Your task to perform on an android device: Show me popular games on the Play Store Image 0: 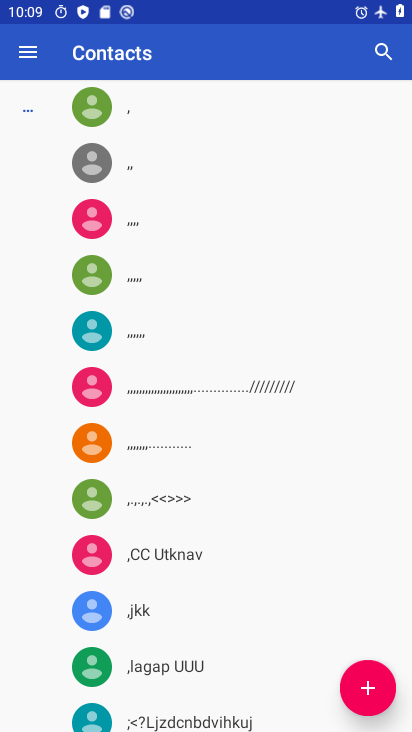
Step 0: press back button
Your task to perform on an android device: Show me popular games on the Play Store Image 1: 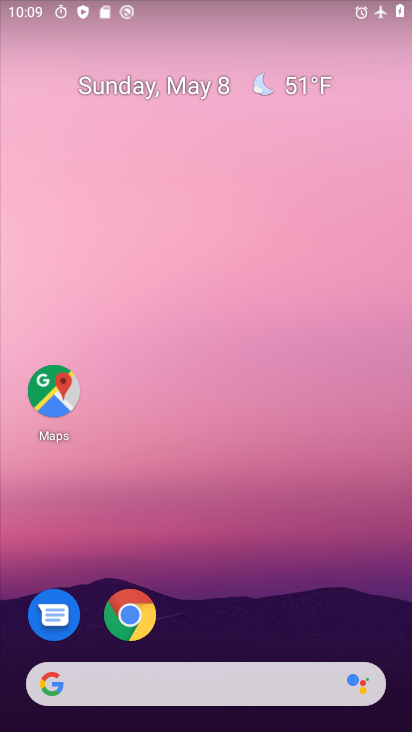
Step 1: drag from (225, 608) to (204, 188)
Your task to perform on an android device: Show me popular games on the Play Store Image 2: 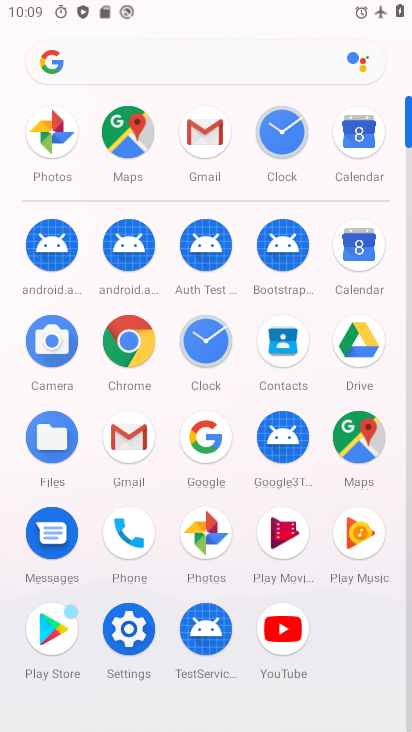
Step 2: click (45, 627)
Your task to perform on an android device: Show me popular games on the Play Store Image 3: 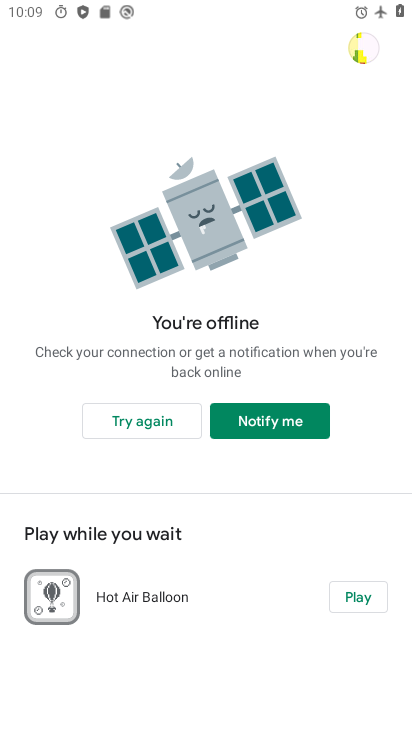
Step 3: task complete